Your task to perform on an android device: turn on data saver in the chrome app Image 0: 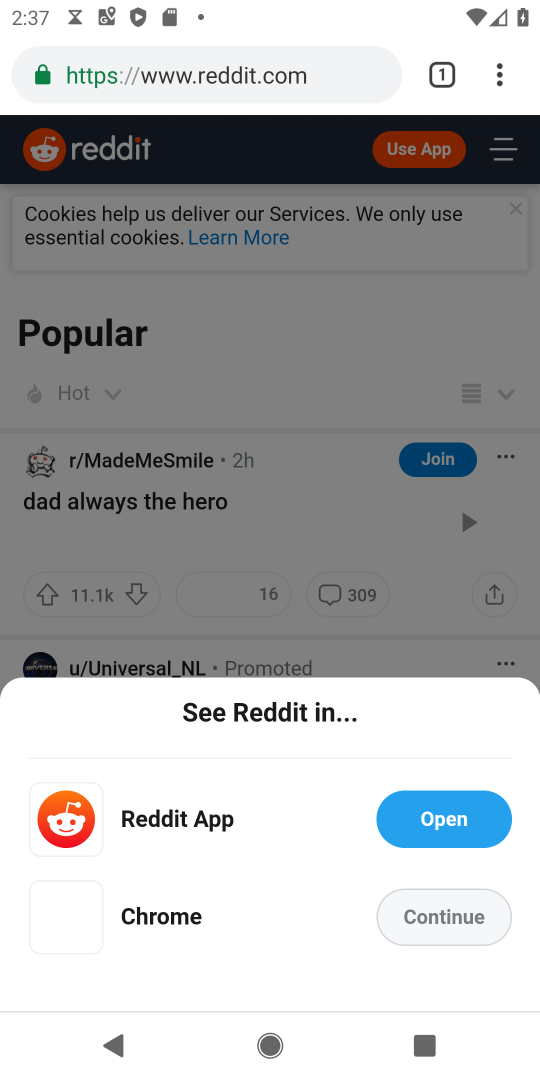
Step 0: press home button
Your task to perform on an android device: turn on data saver in the chrome app Image 1: 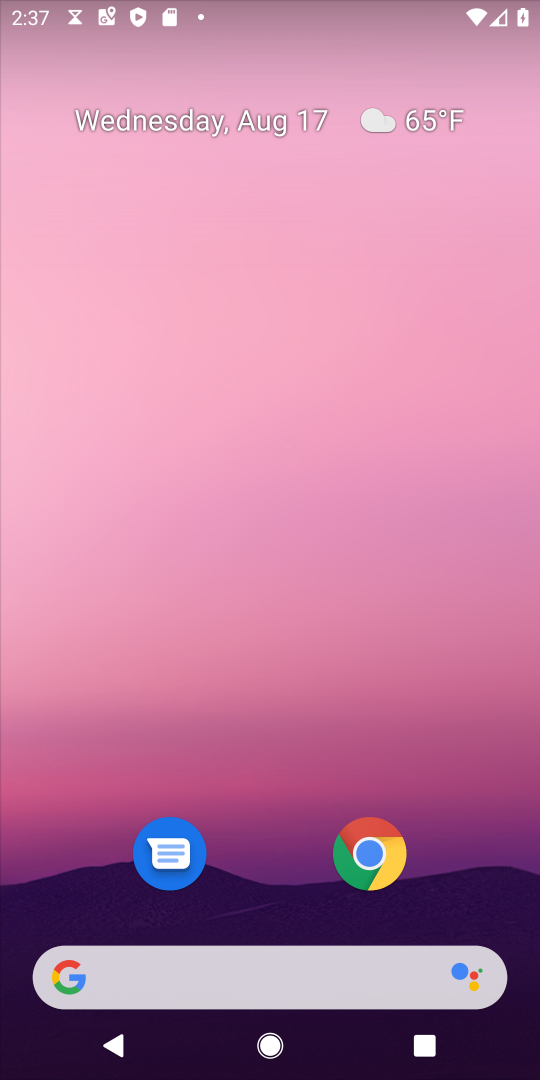
Step 1: drag from (268, 877) to (297, 58)
Your task to perform on an android device: turn on data saver in the chrome app Image 2: 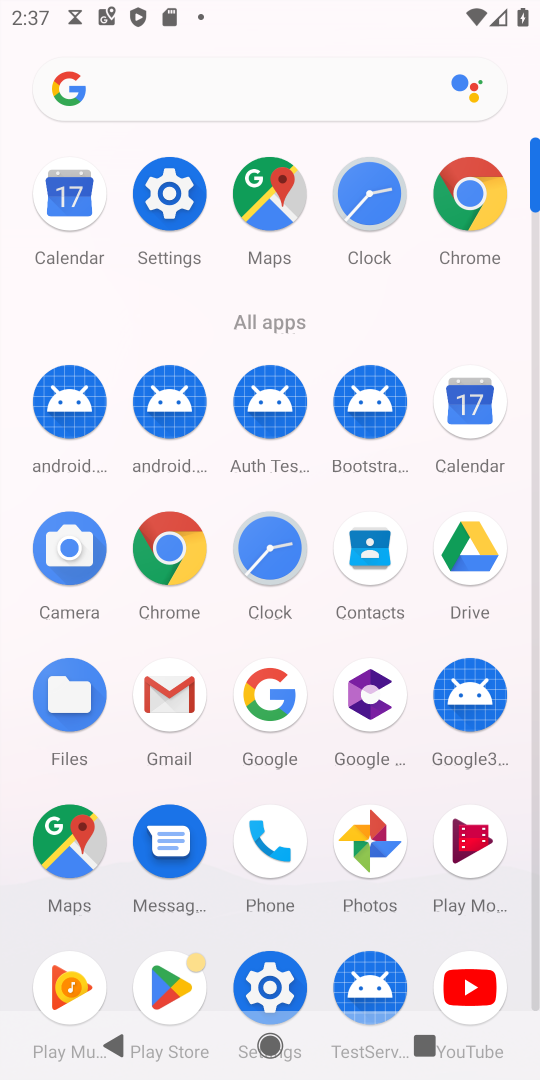
Step 2: click (167, 539)
Your task to perform on an android device: turn on data saver in the chrome app Image 3: 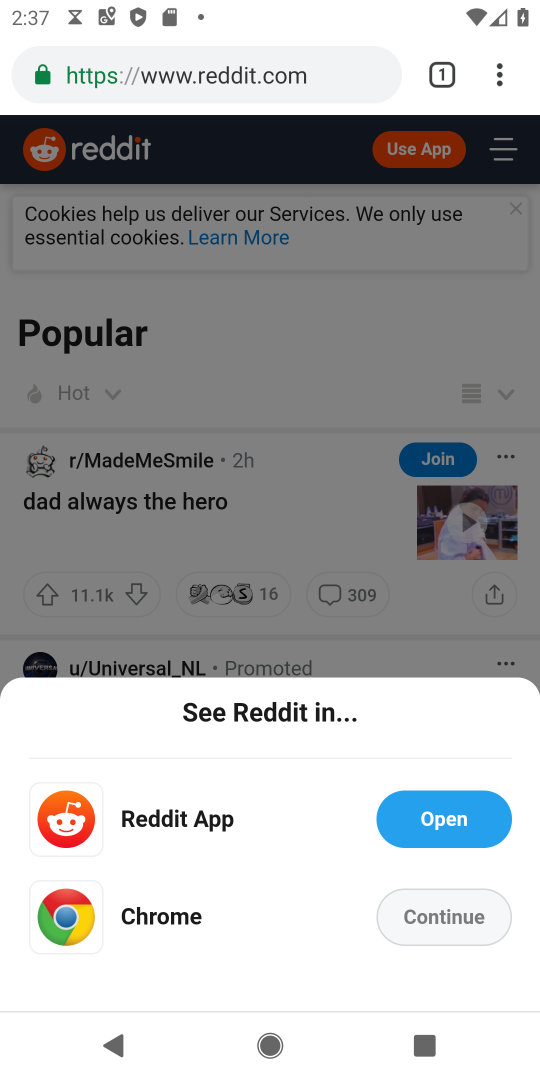
Step 3: drag from (500, 71) to (271, 902)
Your task to perform on an android device: turn on data saver in the chrome app Image 4: 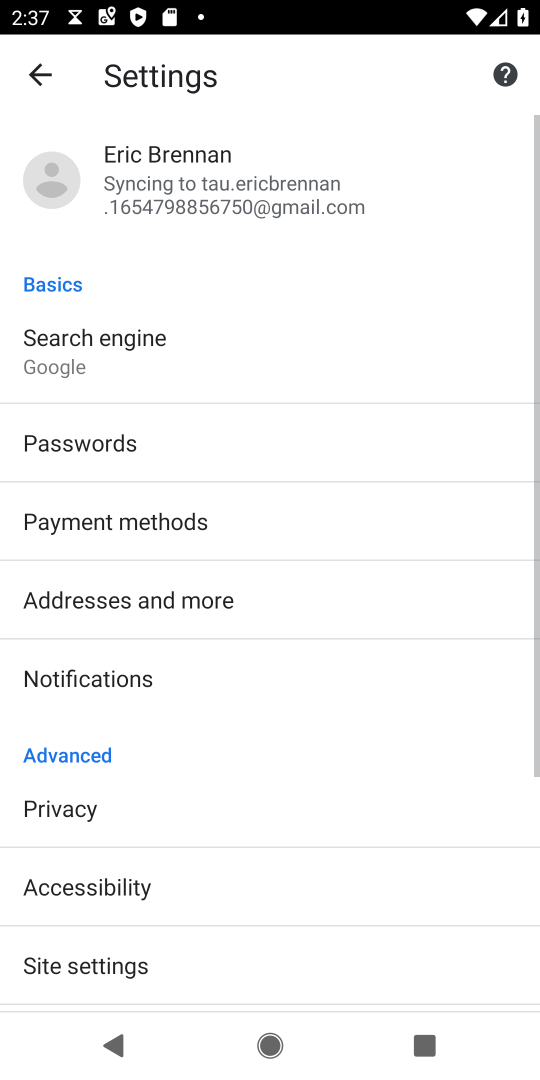
Step 4: drag from (342, 926) to (368, 347)
Your task to perform on an android device: turn on data saver in the chrome app Image 5: 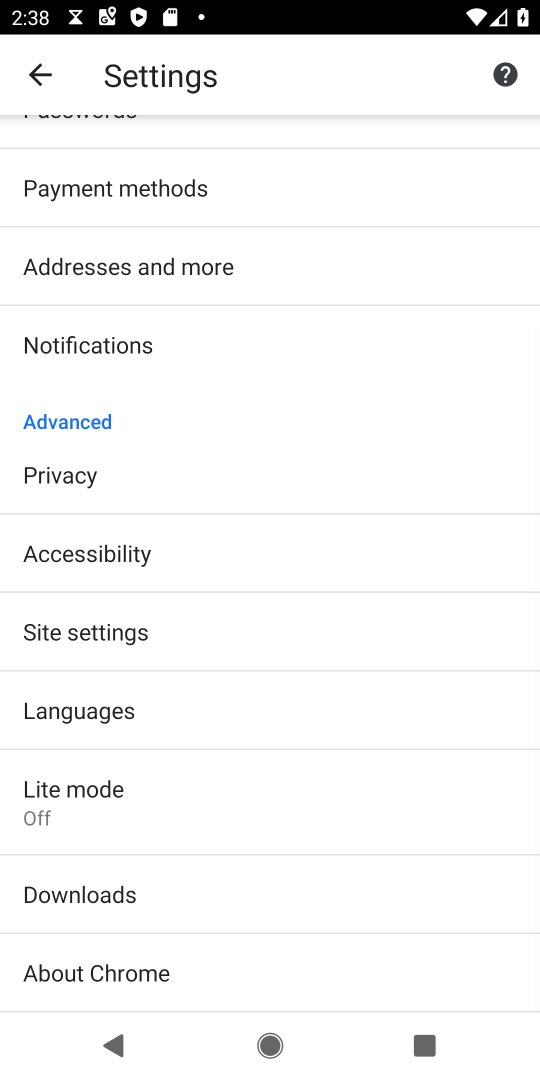
Step 5: click (126, 792)
Your task to perform on an android device: turn on data saver in the chrome app Image 6: 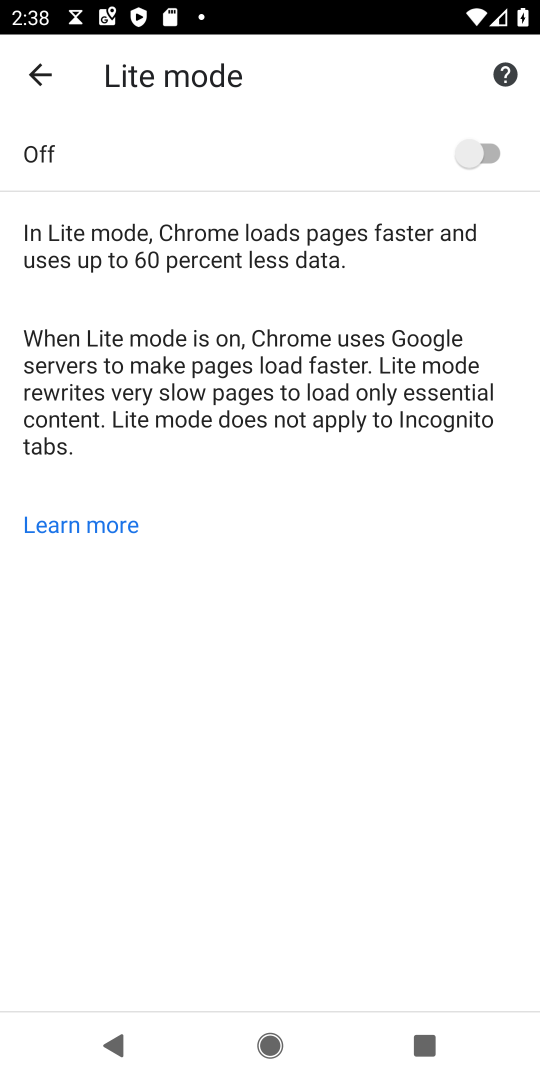
Step 6: click (465, 155)
Your task to perform on an android device: turn on data saver in the chrome app Image 7: 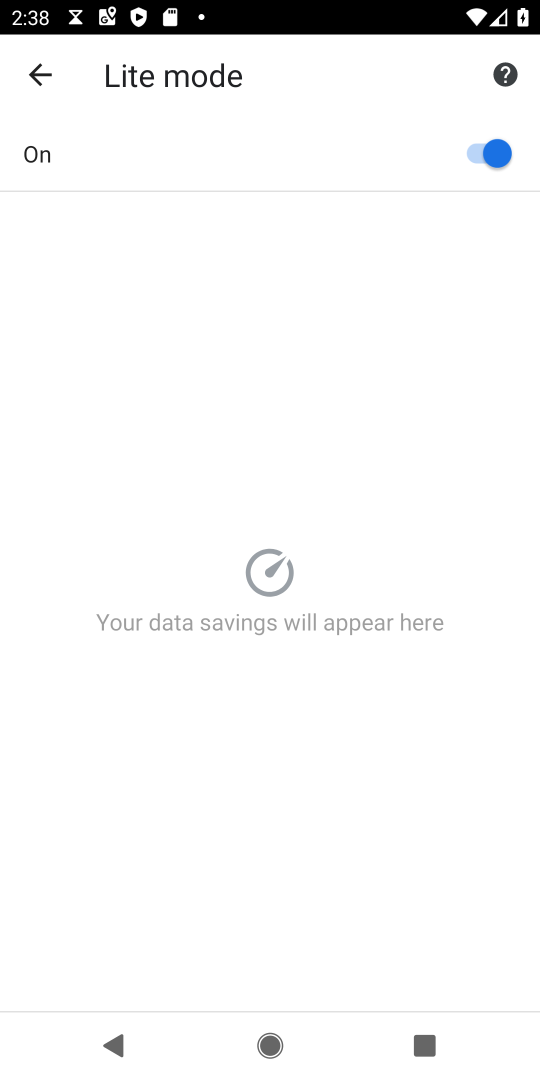
Step 7: task complete